Your task to perform on an android device: Open Chrome and go to settings Image 0: 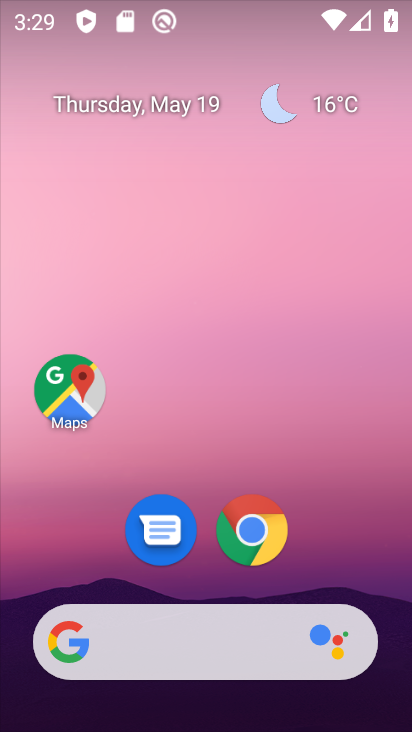
Step 0: click (251, 536)
Your task to perform on an android device: Open Chrome and go to settings Image 1: 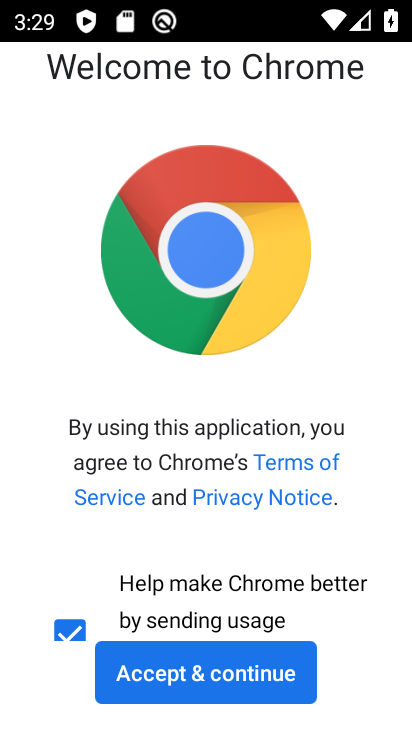
Step 1: click (175, 693)
Your task to perform on an android device: Open Chrome and go to settings Image 2: 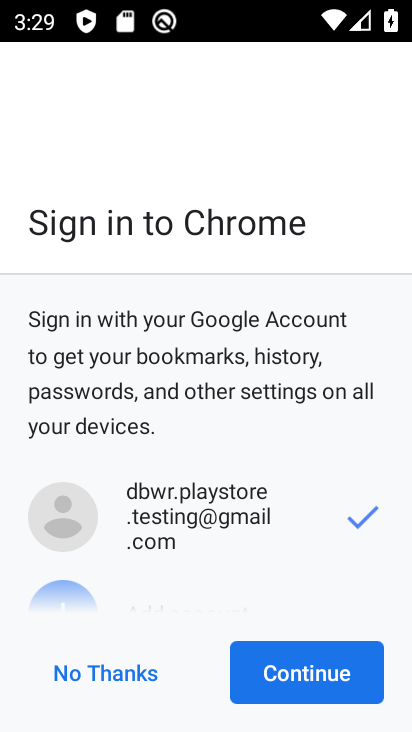
Step 2: click (287, 696)
Your task to perform on an android device: Open Chrome and go to settings Image 3: 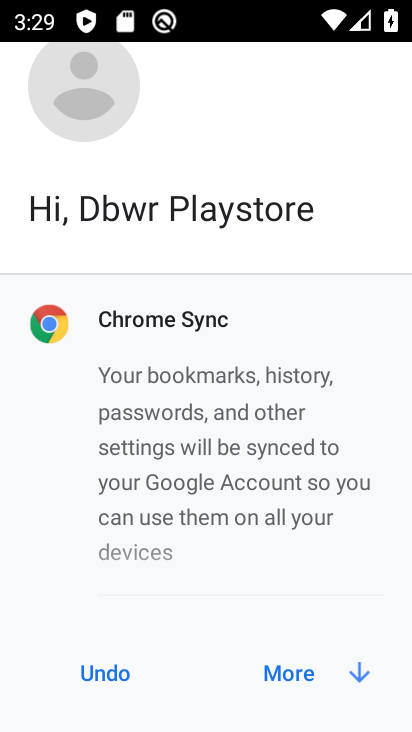
Step 3: click (298, 681)
Your task to perform on an android device: Open Chrome and go to settings Image 4: 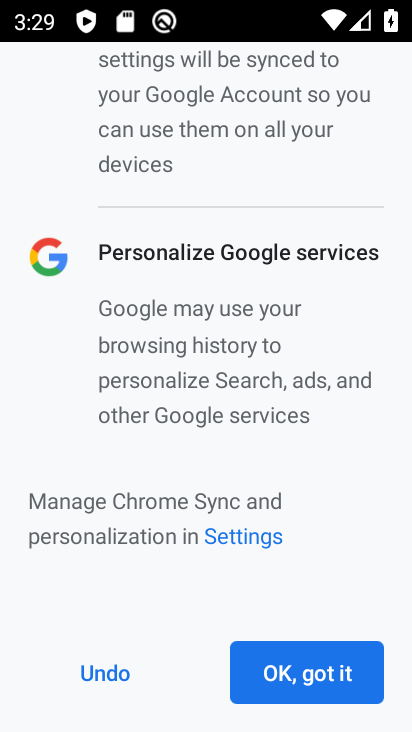
Step 4: click (298, 681)
Your task to perform on an android device: Open Chrome and go to settings Image 5: 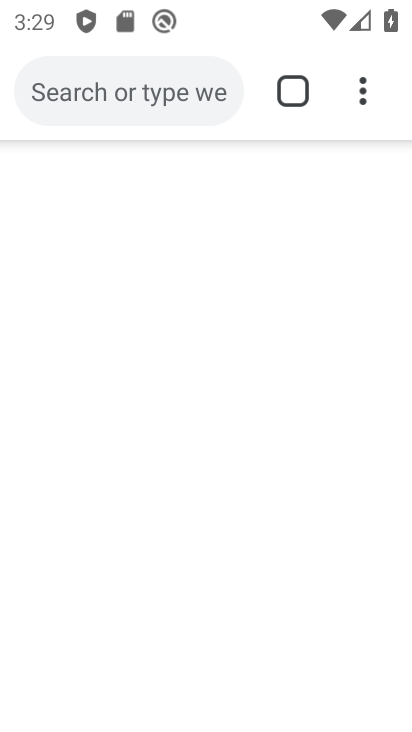
Step 5: click (364, 84)
Your task to perform on an android device: Open Chrome and go to settings Image 6: 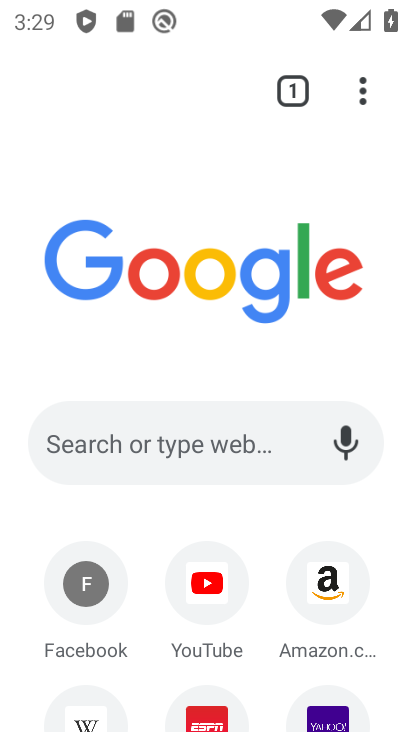
Step 6: task complete